Your task to perform on an android device: Go to Wikipedia Image 0: 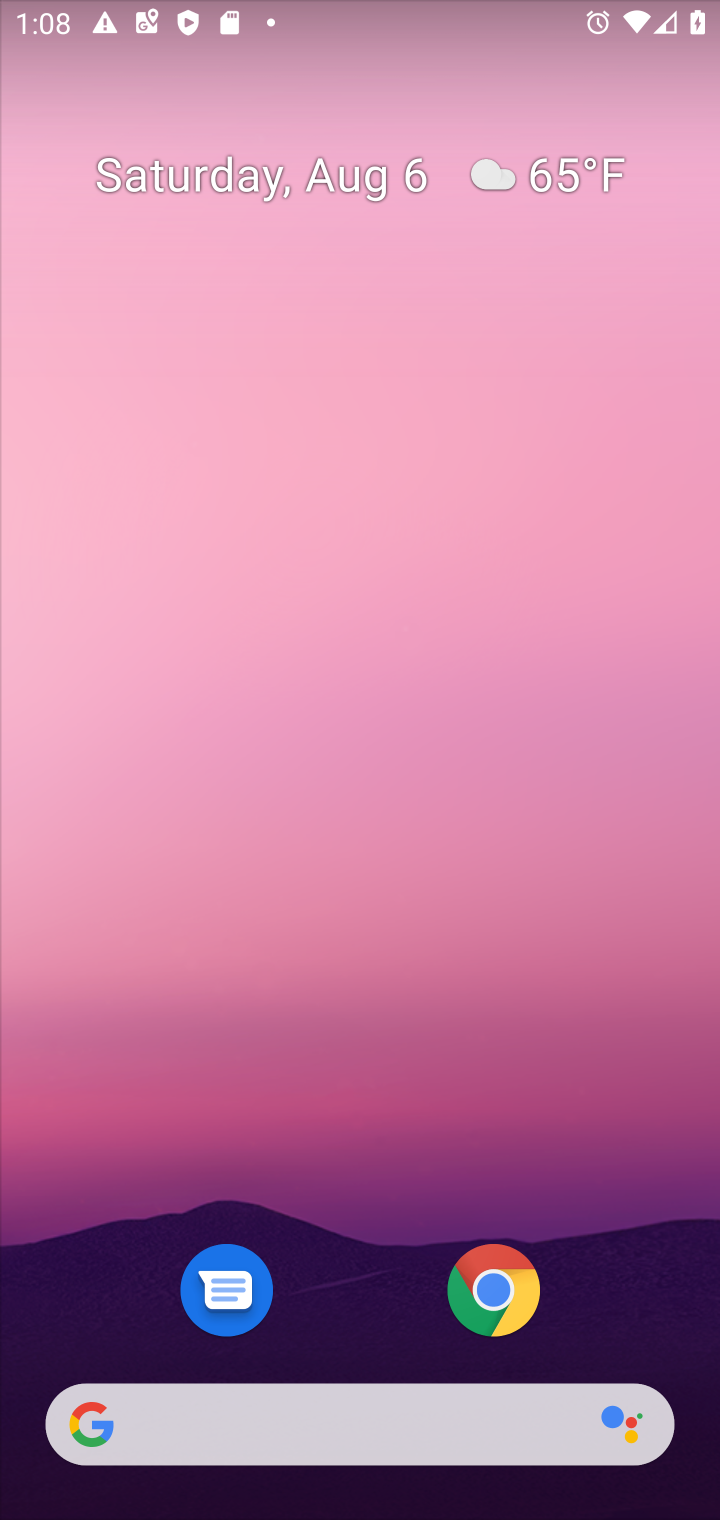
Step 0: click (493, 1274)
Your task to perform on an android device: Go to Wikipedia Image 1: 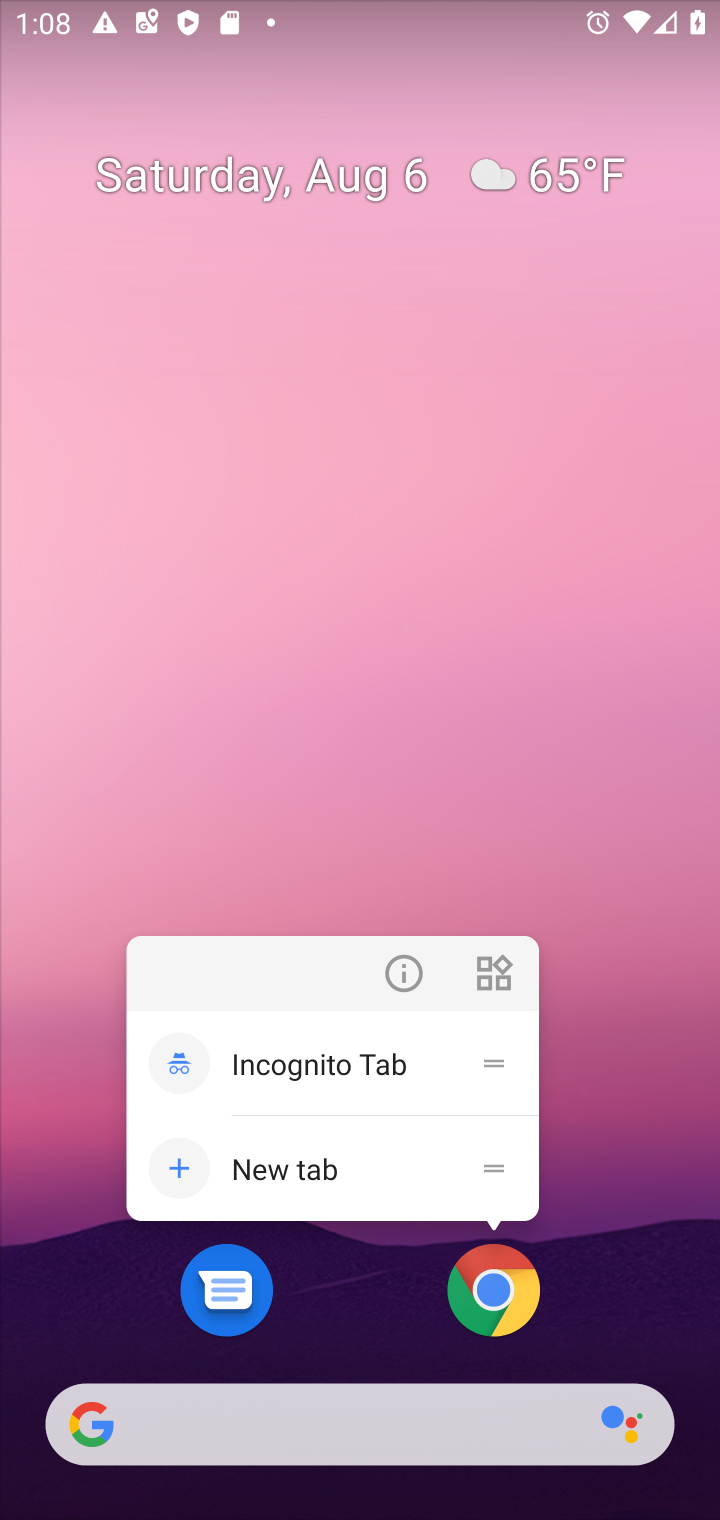
Step 1: click (497, 1273)
Your task to perform on an android device: Go to Wikipedia Image 2: 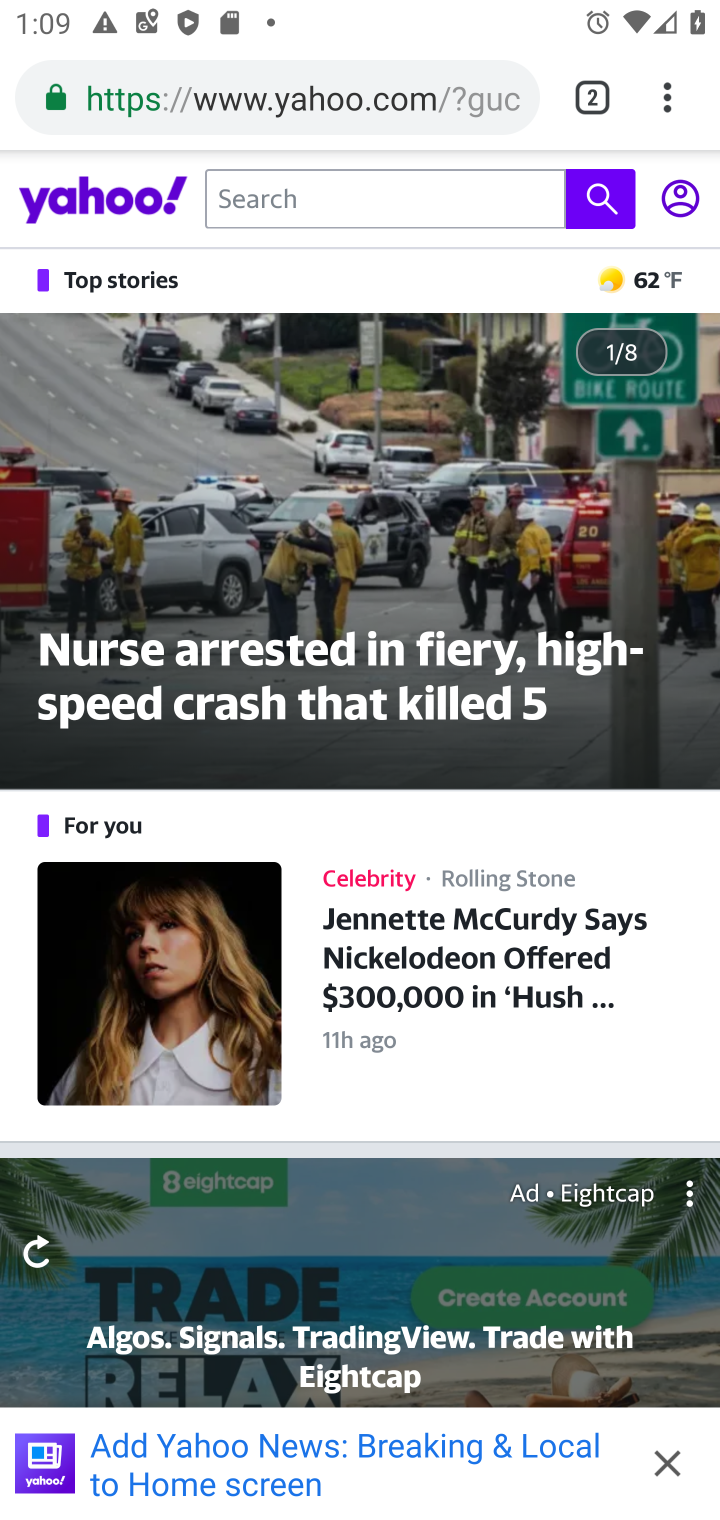
Step 2: click (667, 96)
Your task to perform on an android device: Go to Wikipedia Image 3: 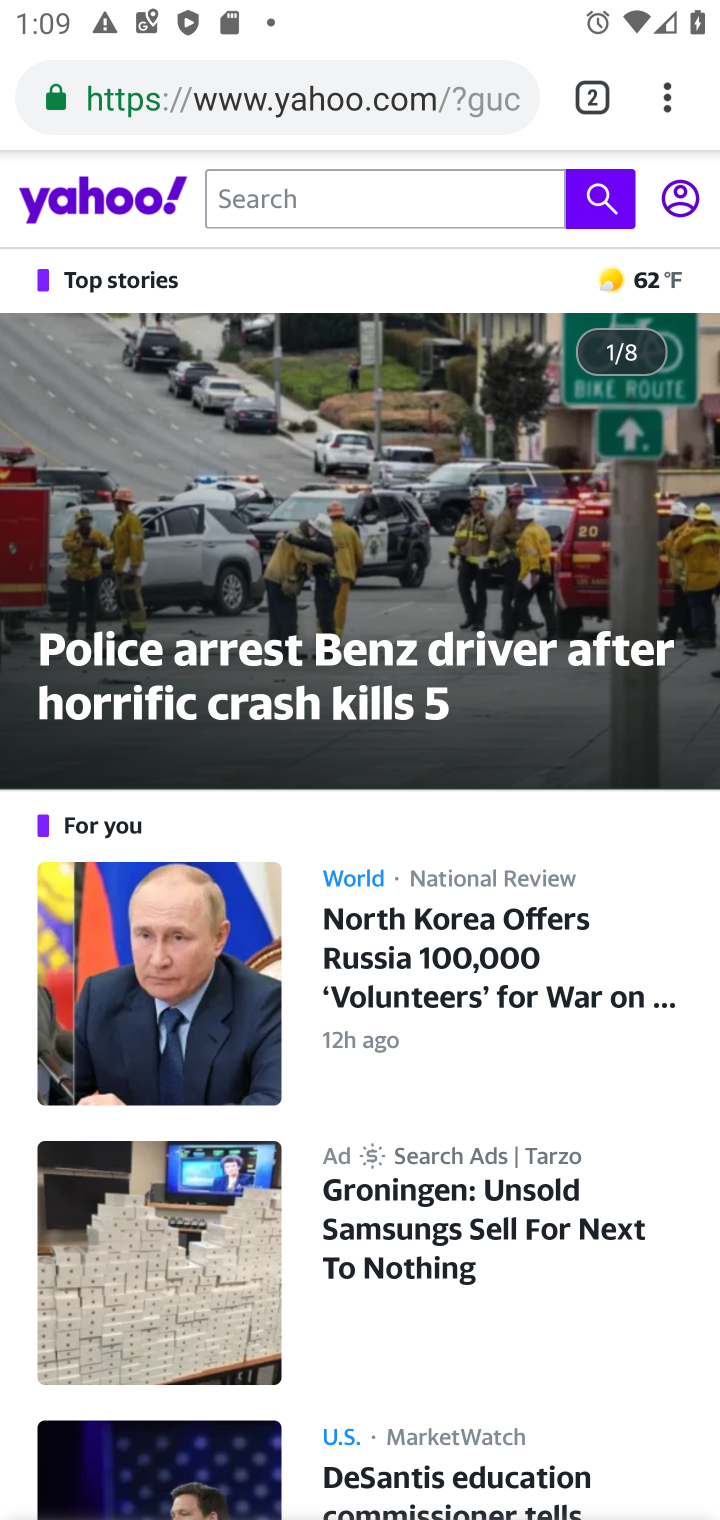
Step 3: click (588, 93)
Your task to perform on an android device: Go to Wikipedia Image 4: 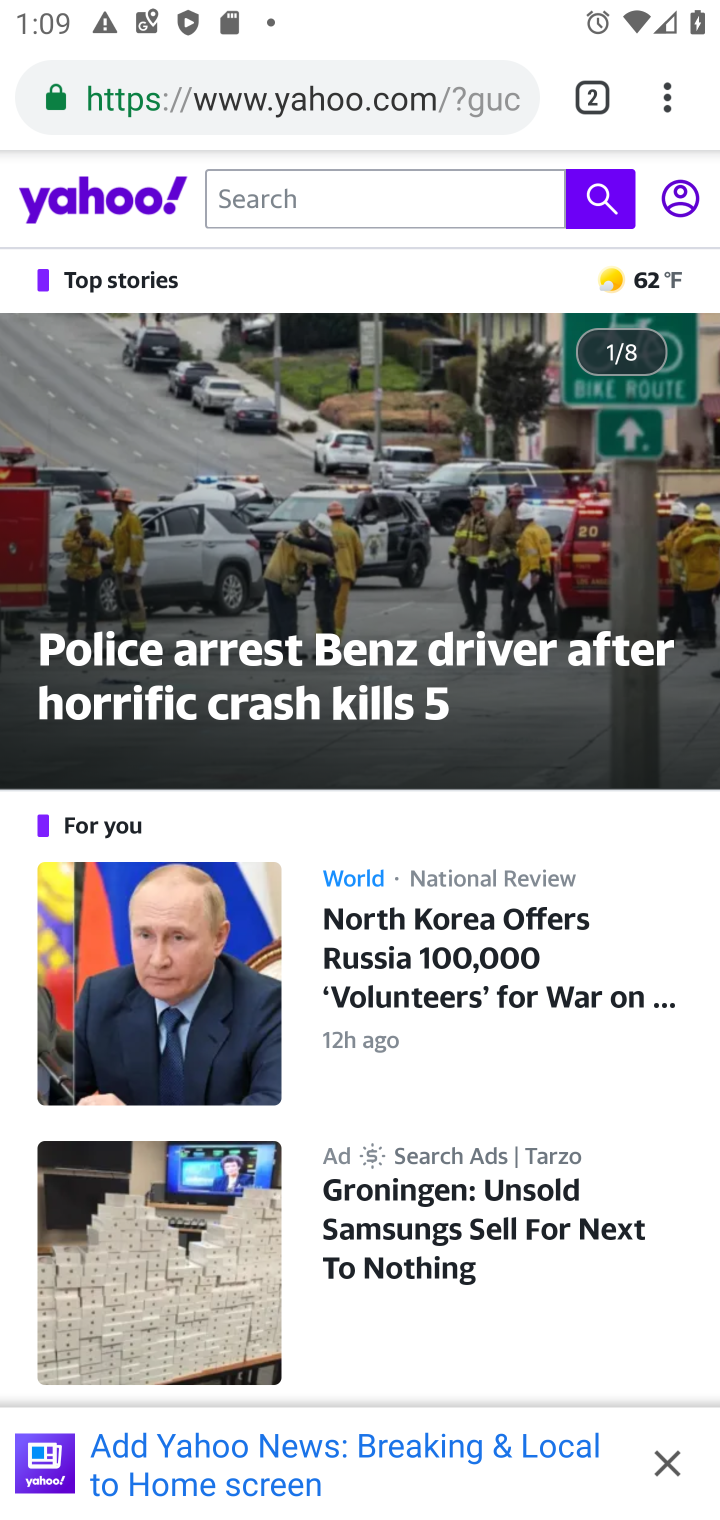
Step 4: click (605, 89)
Your task to perform on an android device: Go to Wikipedia Image 5: 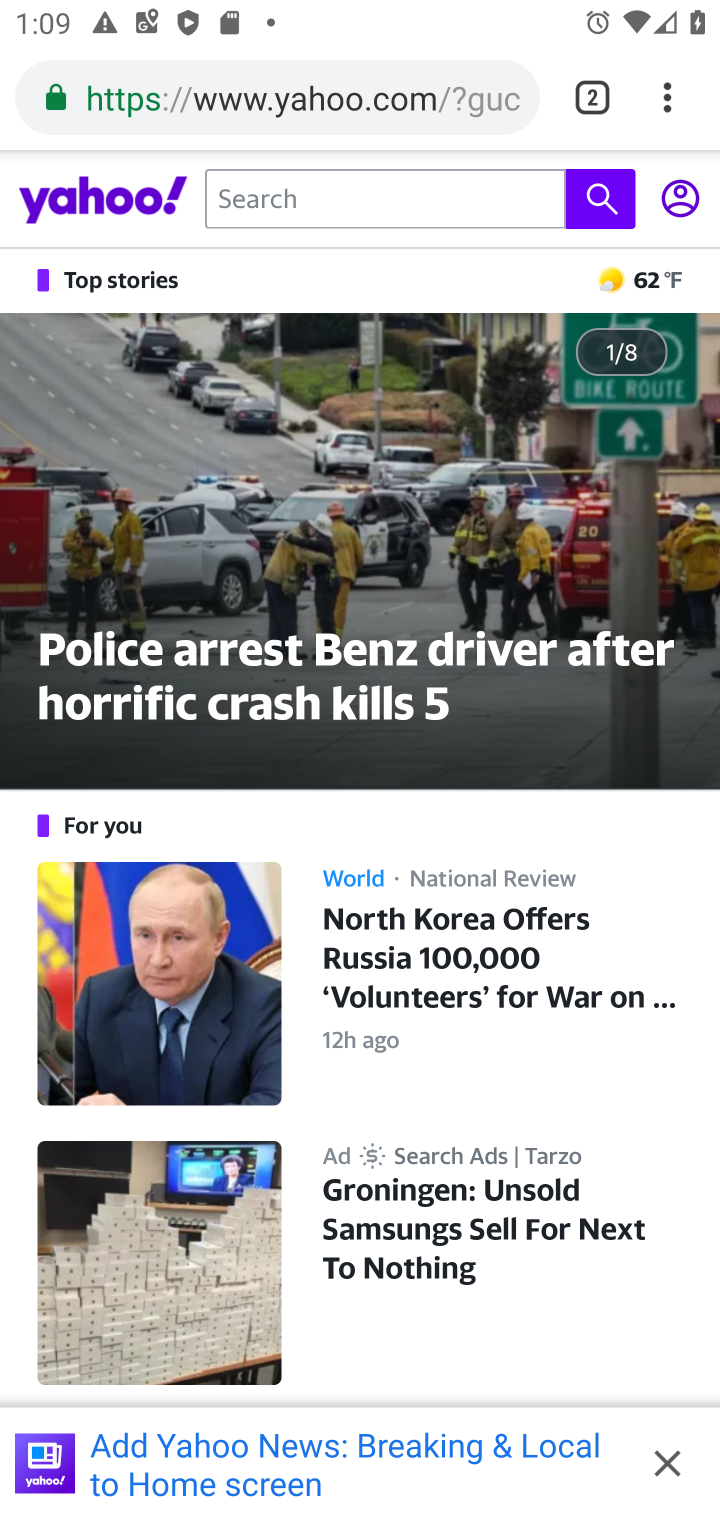
Step 5: click (594, 89)
Your task to perform on an android device: Go to Wikipedia Image 6: 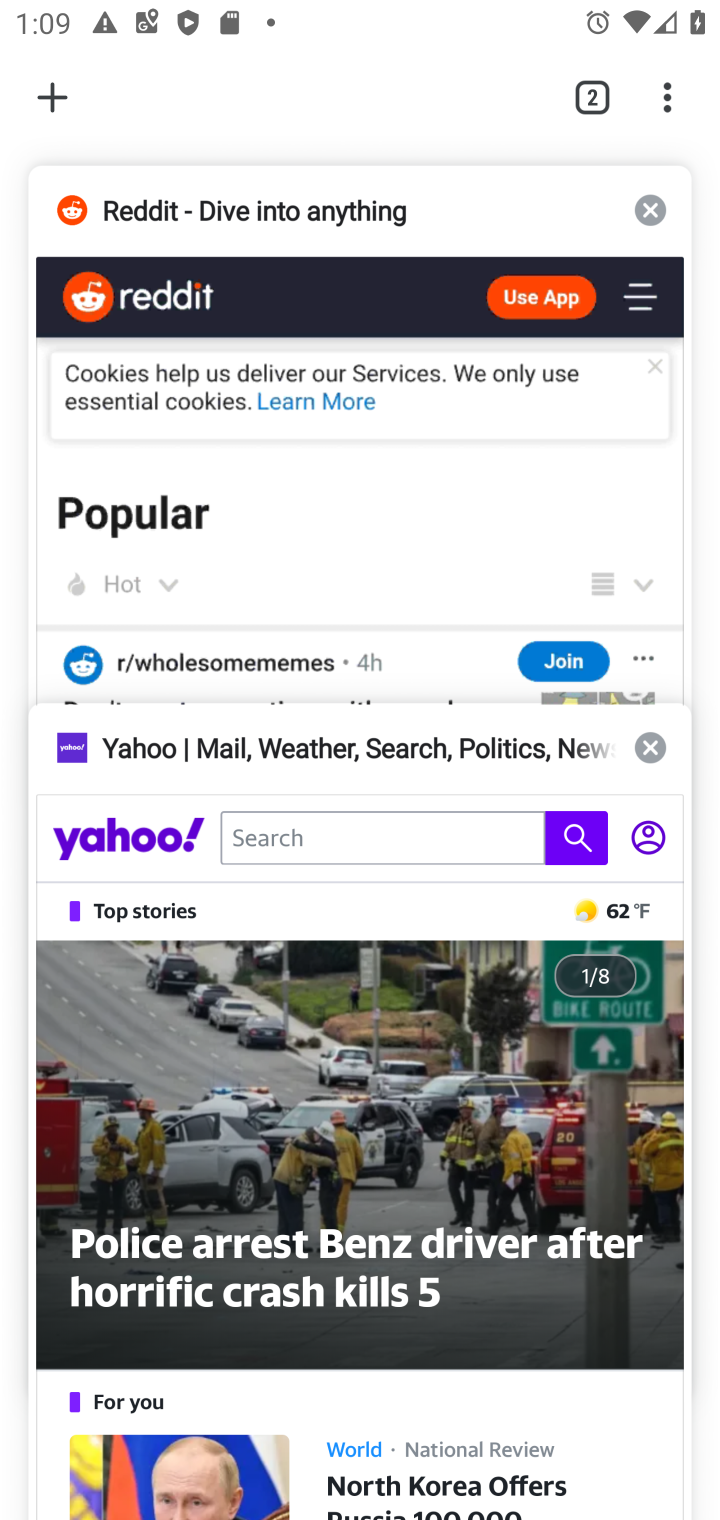
Step 6: click (62, 87)
Your task to perform on an android device: Go to Wikipedia Image 7: 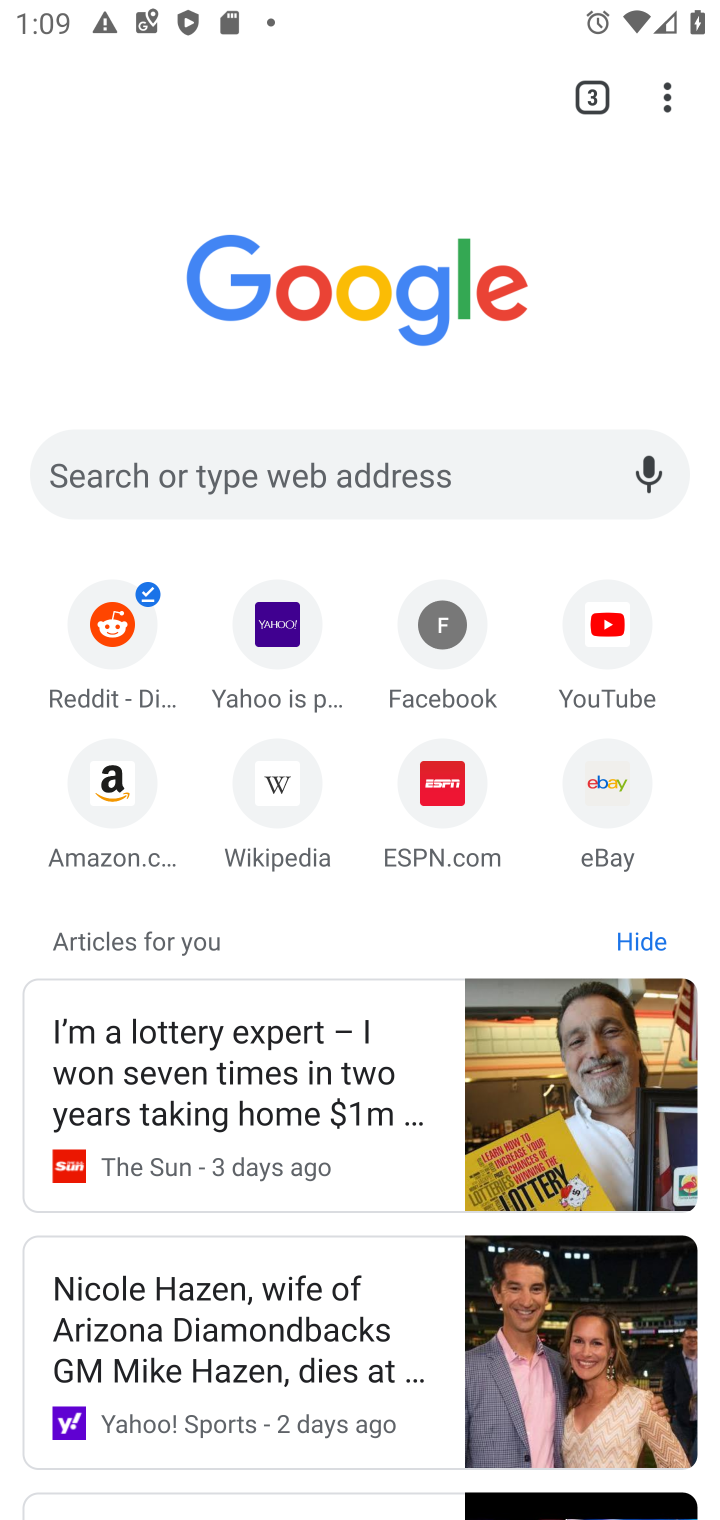
Step 7: click (272, 768)
Your task to perform on an android device: Go to Wikipedia Image 8: 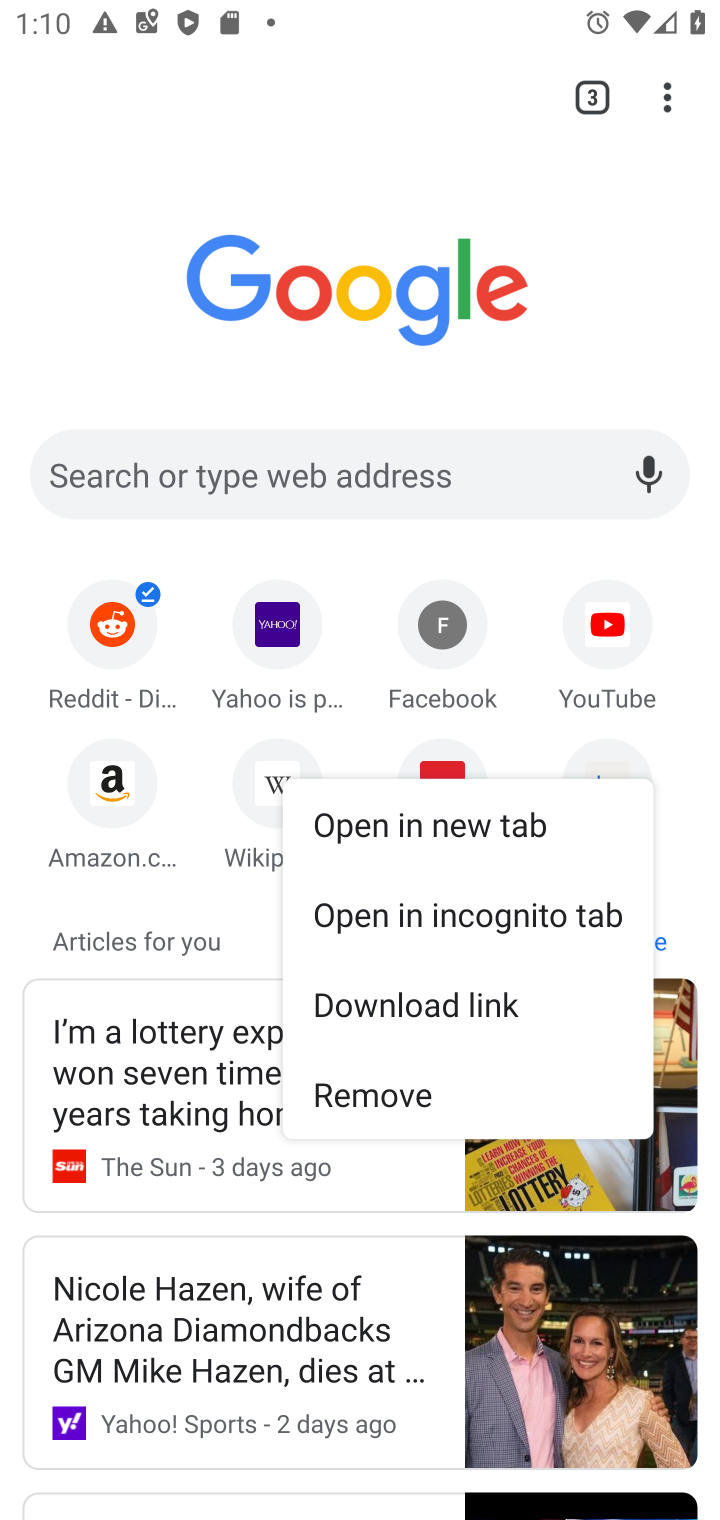
Step 8: click (252, 785)
Your task to perform on an android device: Go to Wikipedia Image 9: 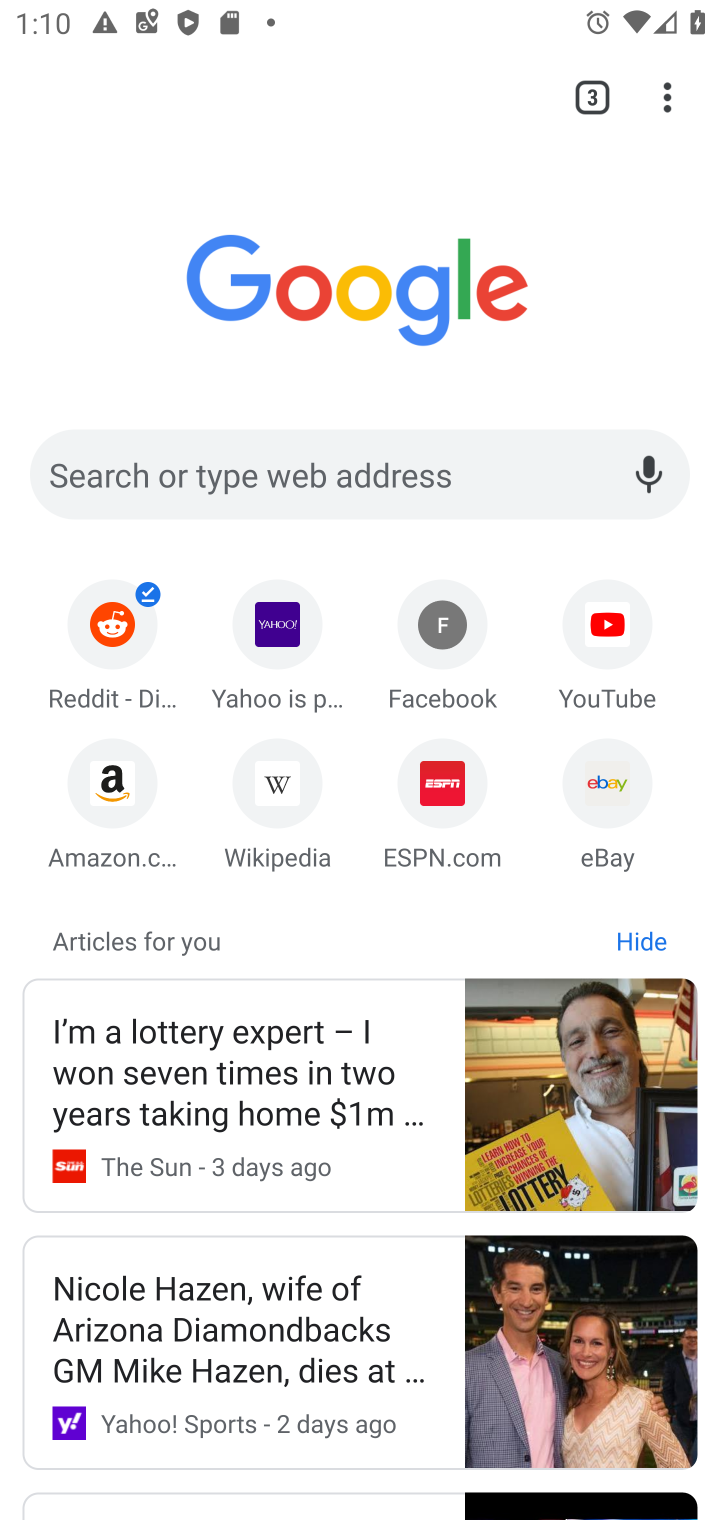
Step 9: click (266, 787)
Your task to perform on an android device: Go to Wikipedia Image 10: 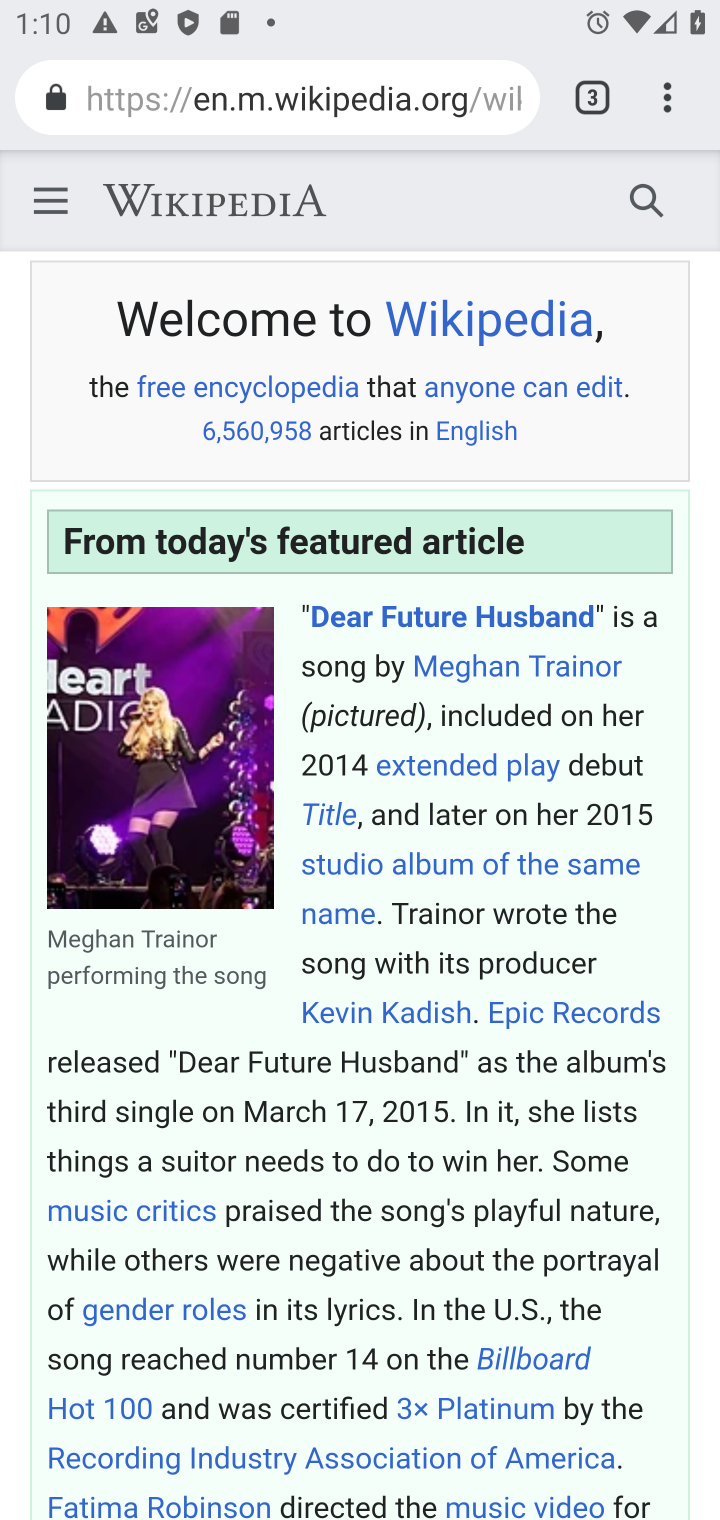
Step 10: task complete